Your task to perform on an android device: Add beats solo 3 to the cart on costco.com Image 0: 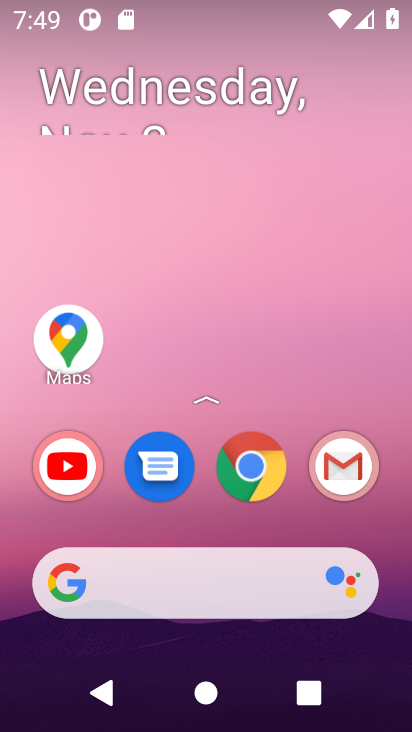
Step 0: click (238, 589)
Your task to perform on an android device: Add beats solo 3 to the cart on costco.com Image 1: 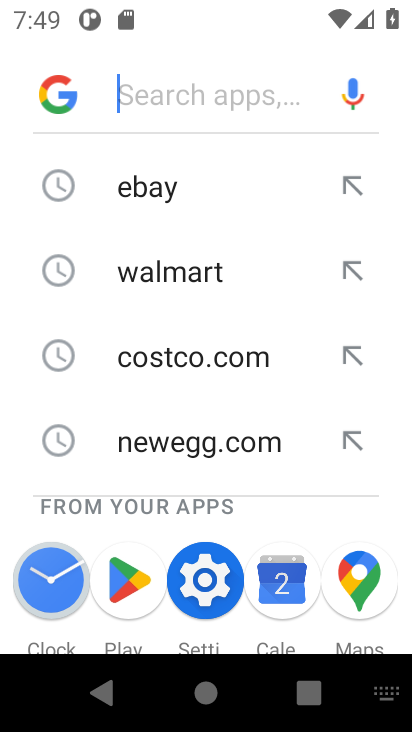
Step 1: type "costco.com"
Your task to perform on an android device: Add beats solo 3 to the cart on costco.com Image 2: 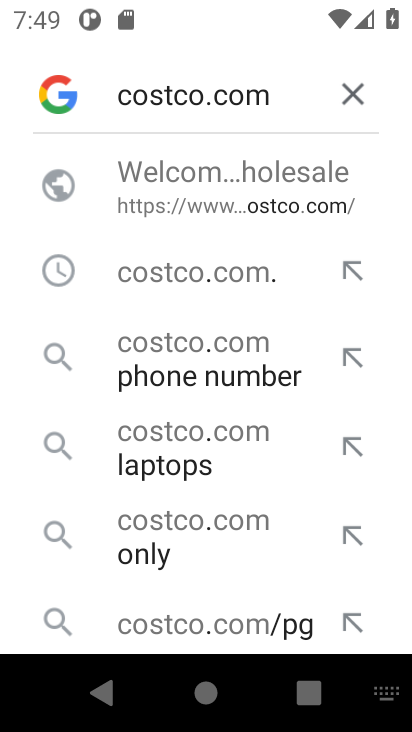
Step 2: type ""
Your task to perform on an android device: Add beats solo 3 to the cart on costco.com Image 3: 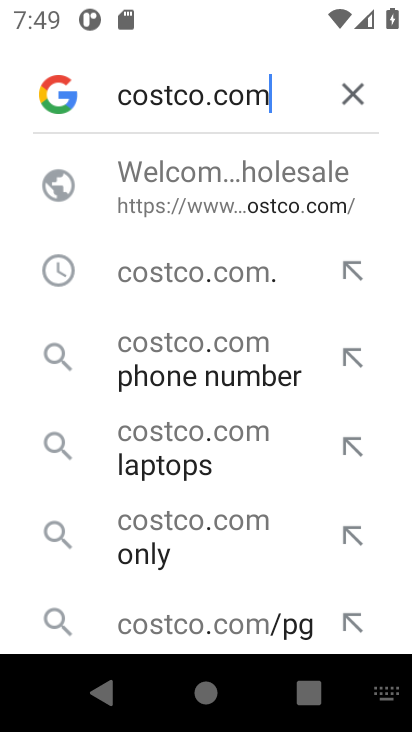
Step 3: click (259, 167)
Your task to perform on an android device: Add beats solo 3 to the cart on costco.com Image 4: 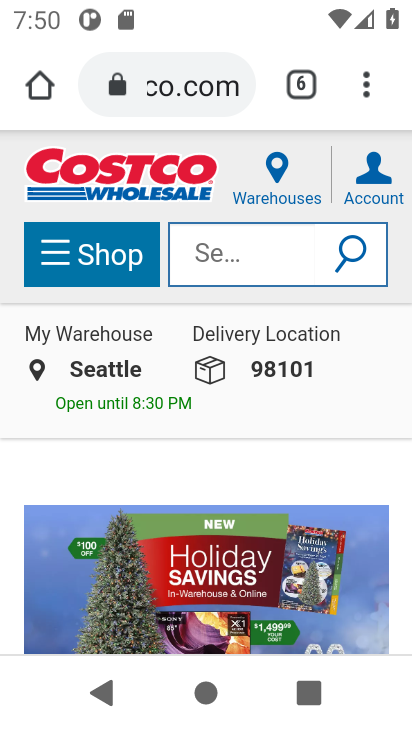
Step 4: click (278, 268)
Your task to perform on an android device: Add beats solo 3 to the cart on costco.com Image 5: 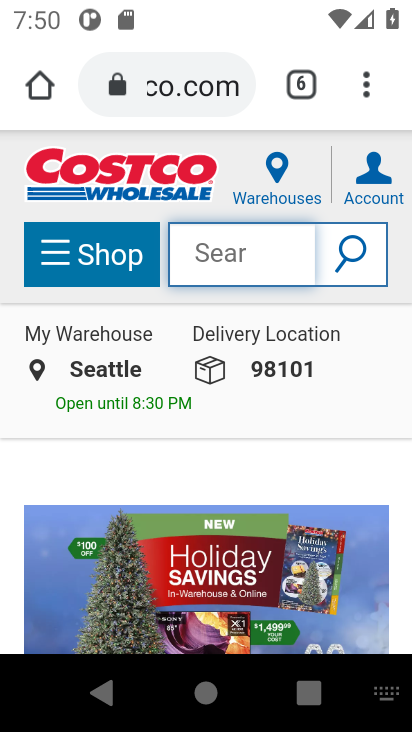
Step 5: type "beats solo 3"
Your task to perform on an android device: Add beats solo 3 to the cart on costco.com Image 6: 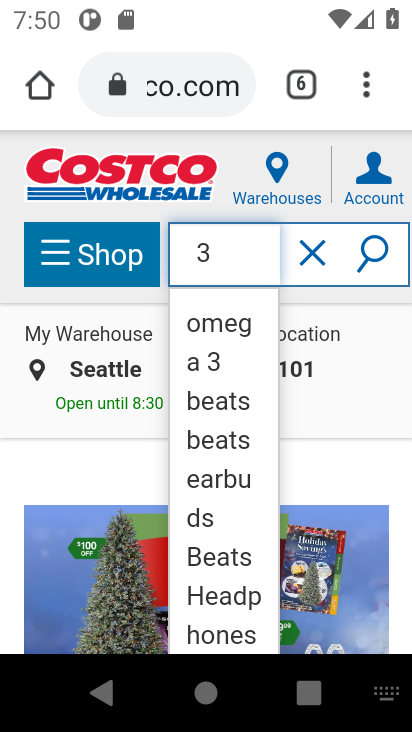
Step 6: click (364, 231)
Your task to perform on an android device: Add beats solo 3 to the cart on costco.com Image 7: 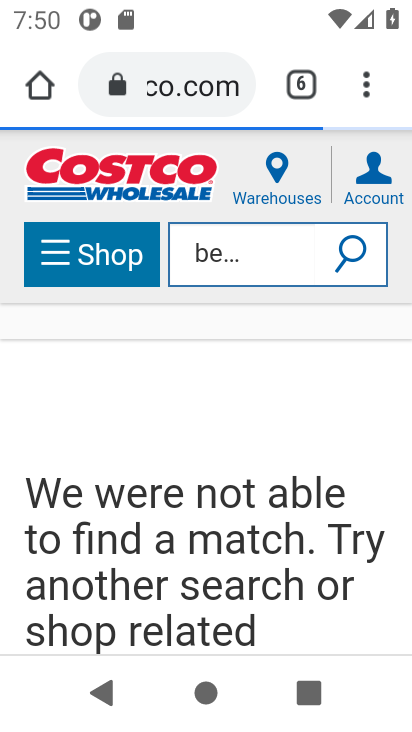
Step 7: drag from (300, 572) to (301, 295)
Your task to perform on an android device: Add beats solo 3 to the cart on costco.com Image 8: 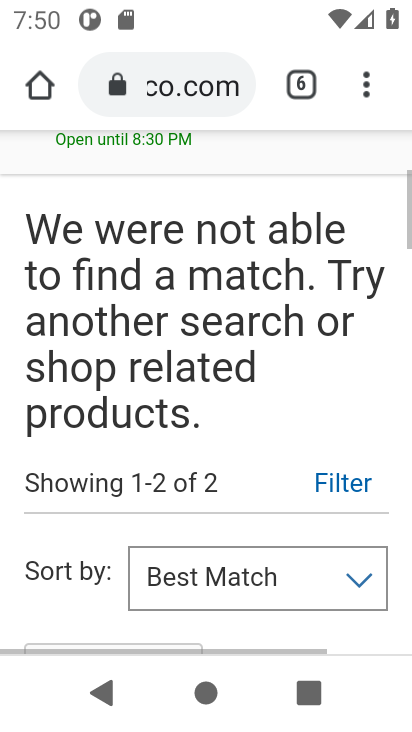
Step 8: drag from (312, 501) to (283, 168)
Your task to perform on an android device: Add beats solo 3 to the cart on costco.com Image 9: 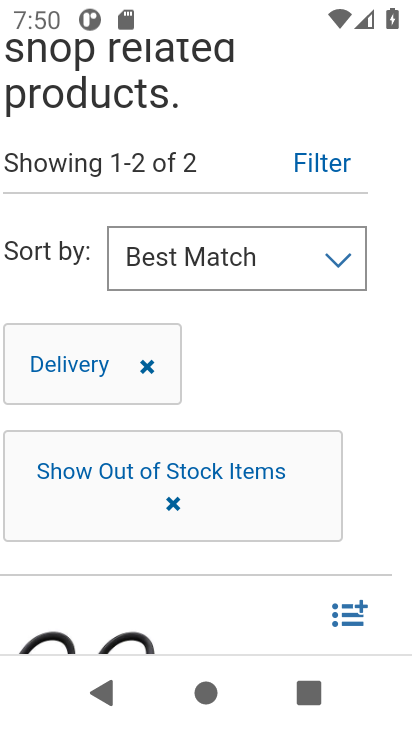
Step 9: drag from (267, 398) to (278, 157)
Your task to perform on an android device: Add beats solo 3 to the cart on costco.com Image 10: 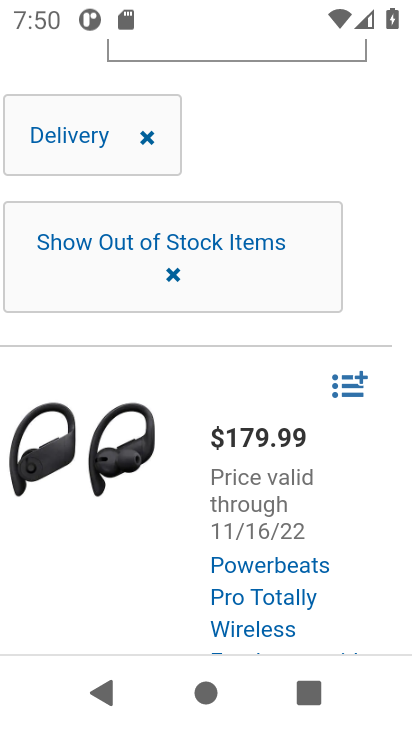
Step 10: drag from (256, 528) to (234, 269)
Your task to perform on an android device: Add beats solo 3 to the cart on costco.com Image 11: 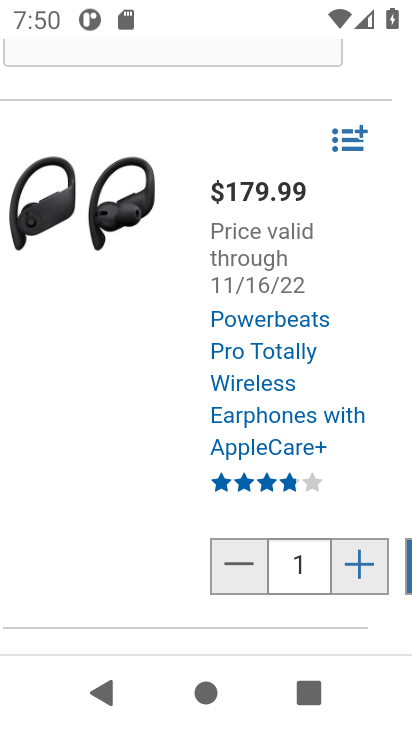
Step 11: click (253, 256)
Your task to perform on an android device: Add beats solo 3 to the cart on costco.com Image 12: 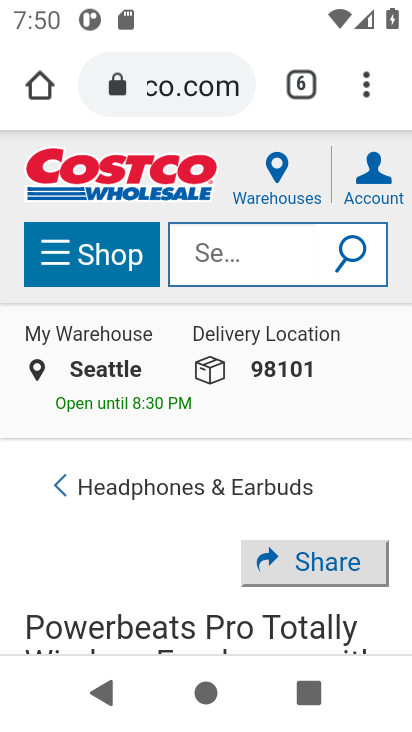
Step 12: drag from (187, 559) to (166, 286)
Your task to perform on an android device: Add beats solo 3 to the cart on costco.com Image 13: 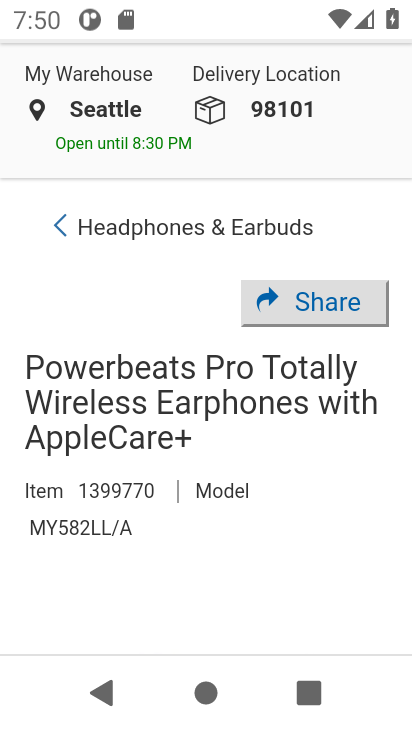
Step 13: drag from (192, 542) to (202, 173)
Your task to perform on an android device: Add beats solo 3 to the cart on costco.com Image 14: 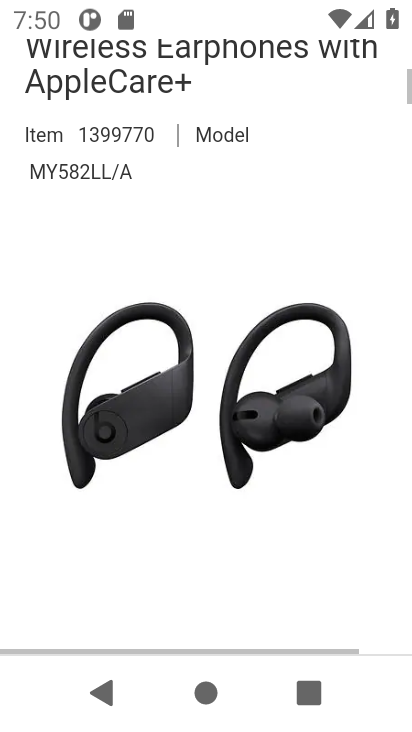
Step 14: drag from (181, 515) to (200, 255)
Your task to perform on an android device: Add beats solo 3 to the cart on costco.com Image 15: 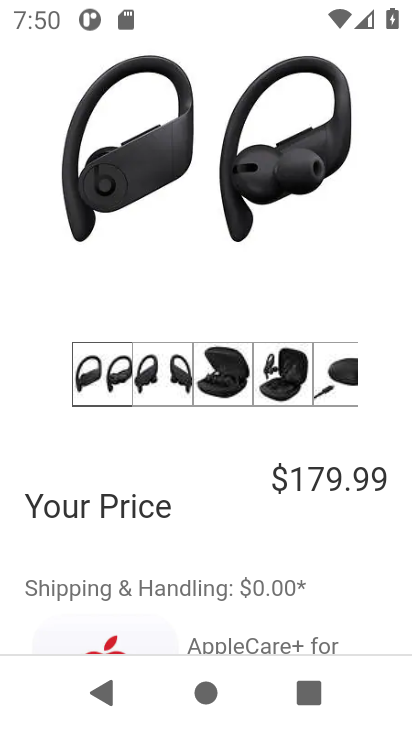
Step 15: drag from (235, 564) to (253, 335)
Your task to perform on an android device: Add beats solo 3 to the cart on costco.com Image 16: 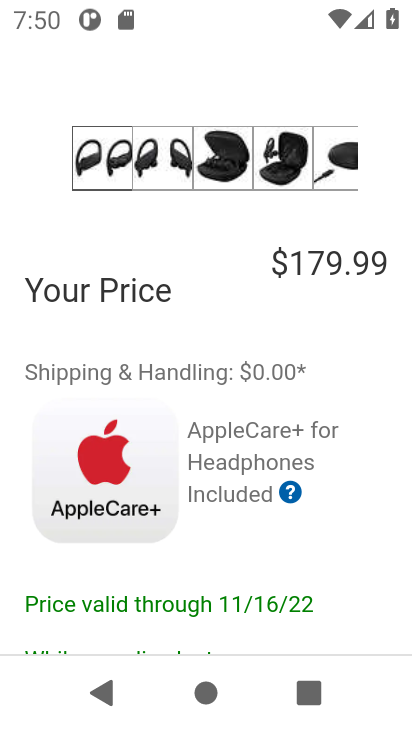
Step 16: drag from (238, 474) to (260, 292)
Your task to perform on an android device: Add beats solo 3 to the cart on costco.com Image 17: 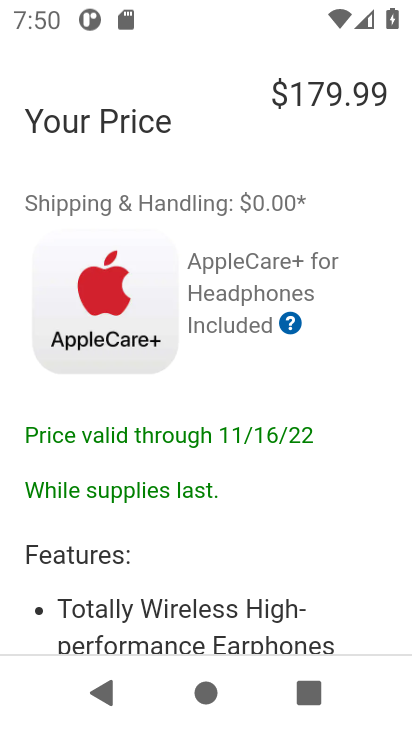
Step 17: drag from (249, 563) to (255, 303)
Your task to perform on an android device: Add beats solo 3 to the cart on costco.com Image 18: 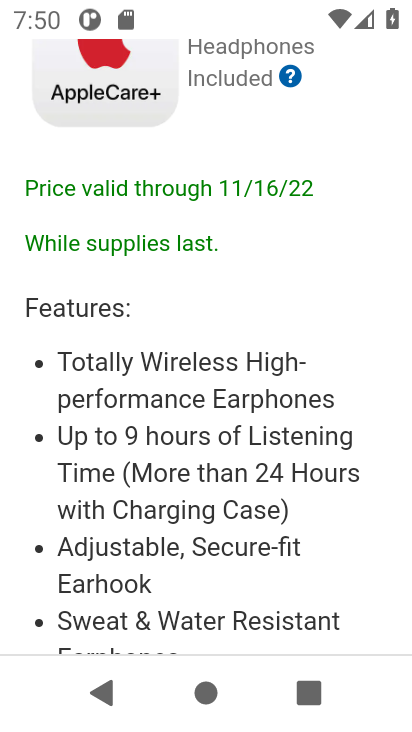
Step 18: drag from (260, 453) to (254, 186)
Your task to perform on an android device: Add beats solo 3 to the cart on costco.com Image 19: 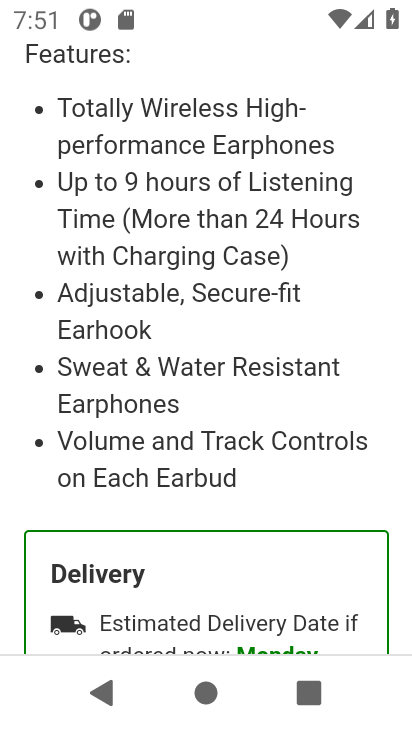
Step 19: drag from (225, 461) to (221, 155)
Your task to perform on an android device: Add beats solo 3 to the cart on costco.com Image 20: 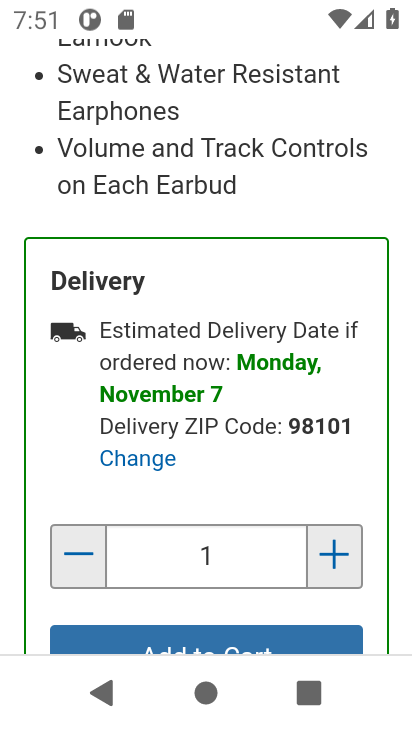
Step 20: drag from (210, 390) to (245, 143)
Your task to perform on an android device: Add beats solo 3 to the cart on costco.com Image 21: 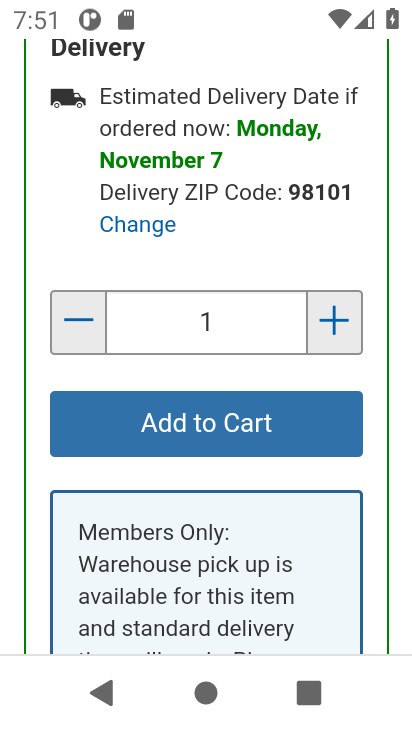
Step 21: click (194, 400)
Your task to perform on an android device: Add beats solo 3 to the cart on costco.com Image 22: 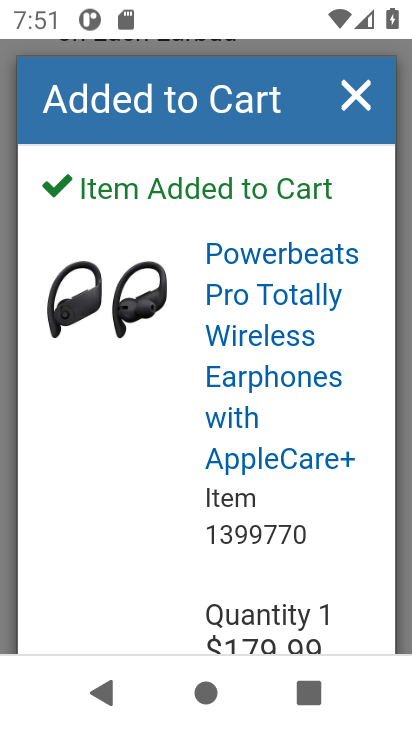
Step 22: task complete